Your task to perform on an android device: delete the emails in spam in the gmail app Image 0: 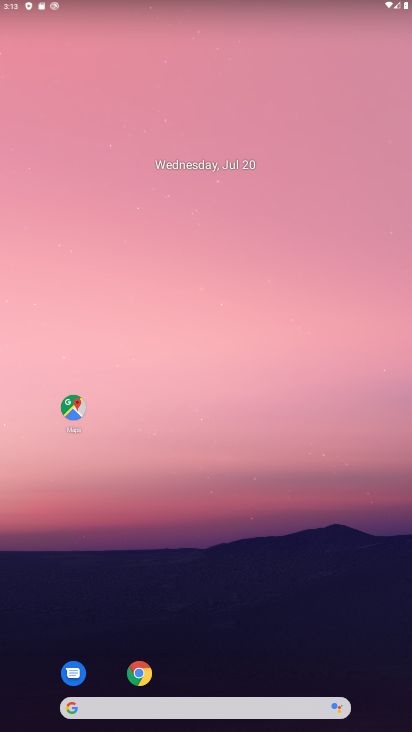
Step 0: drag from (233, 678) to (83, 257)
Your task to perform on an android device: delete the emails in spam in the gmail app Image 1: 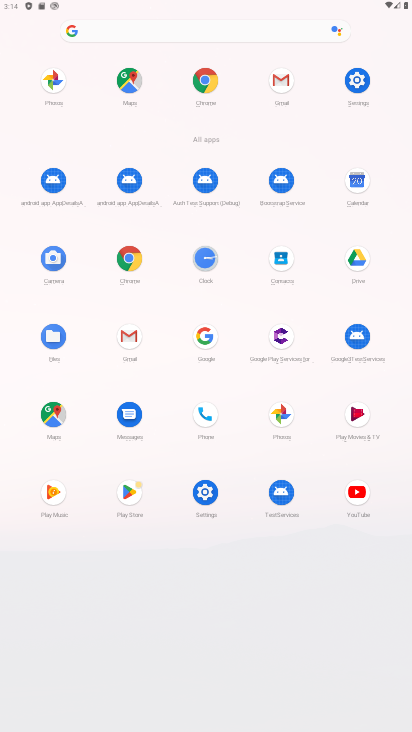
Step 1: click (132, 330)
Your task to perform on an android device: delete the emails in spam in the gmail app Image 2: 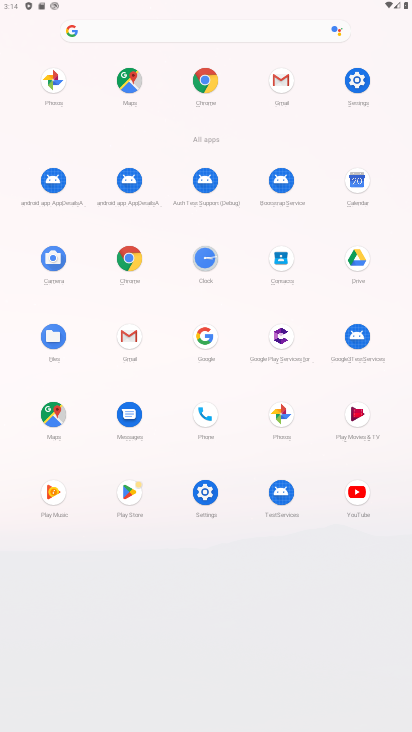
Step 2: click (132, 330)
Your task to perform on an android device: delete the emails in spam in the gmail app Image 3: 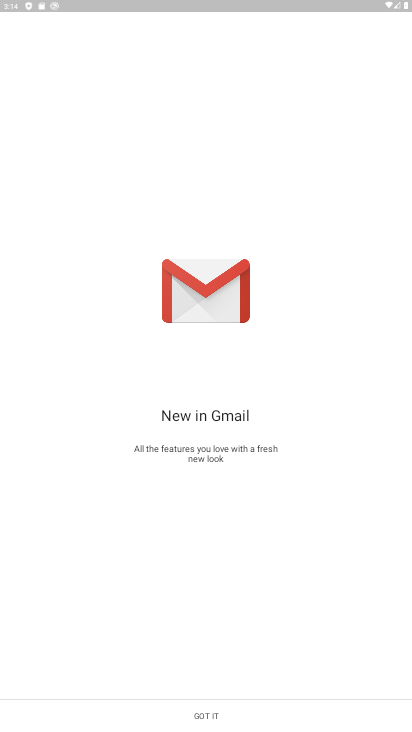
Step 3: click (222, 710)
Your task to perform on an android device: delete the emails in spam in the gmail app Image 4: 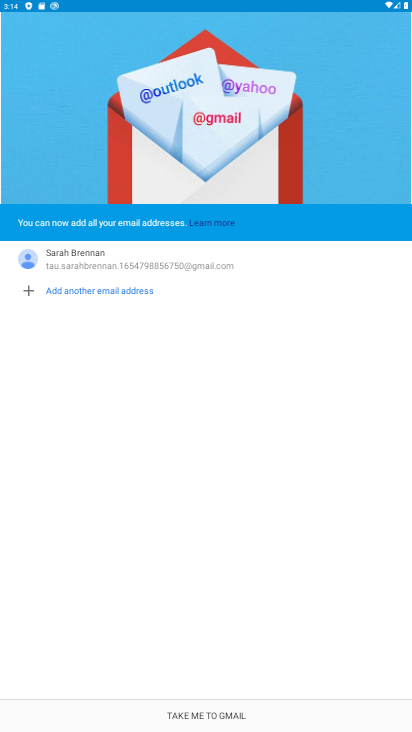
Step 4: click (192, 706)
Your task to perform on an android device: delete the emails in spam in the gmail app Image 5: 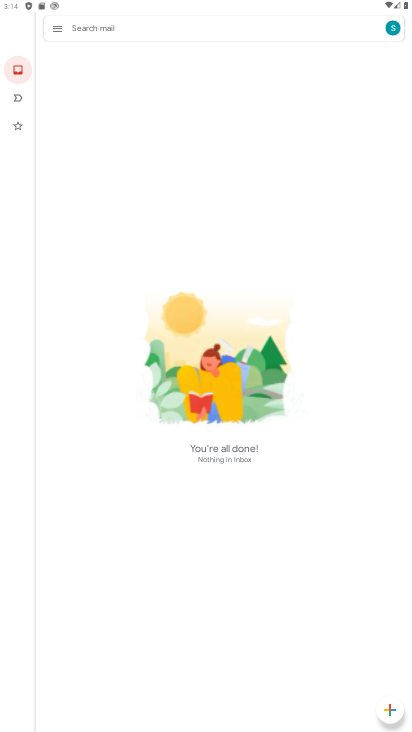
Step 5: click (54, 25)
Your task to perform on an android device: delete the emails in spam in the gmail app Image 6: 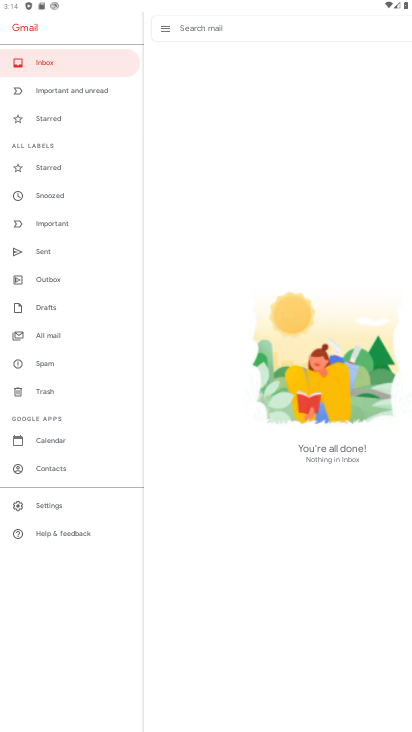
Step 6: click (64, 328)
Your task to perform on an android device: delete the emails in spam in the gmail app Image 7: 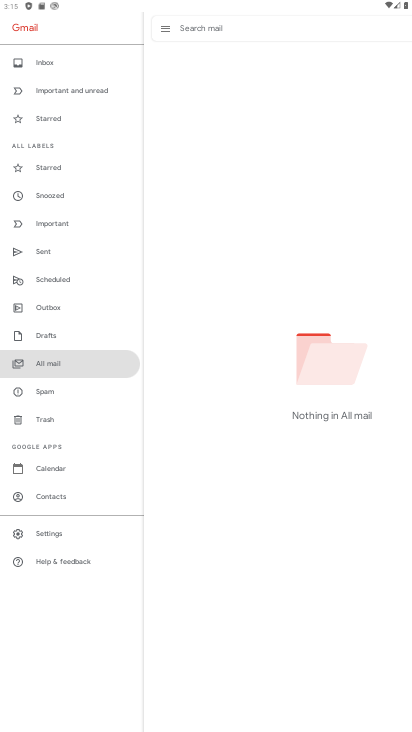
Step 7: task complete